Your task to perform on an android device: Go to network settings Image 0: 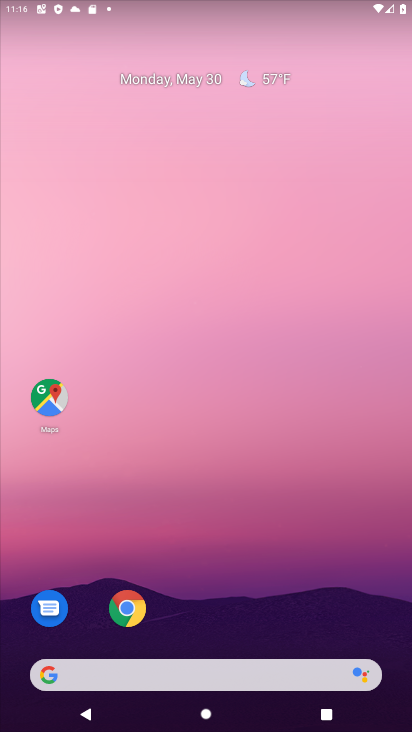
Step 0: drag from (278, 463) to (239, 1)
Your task to perform on an android device: Go to network settings Image 1: 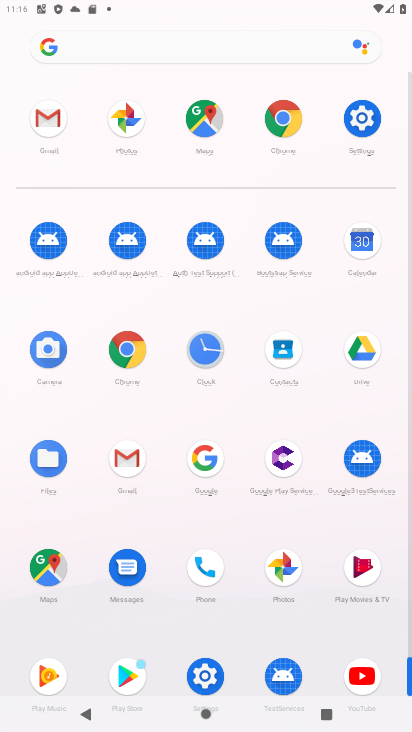
Step 1: drag from (16, 542) to (36, 293)
Your task to perform on an android device: Go to network settings Image 2: 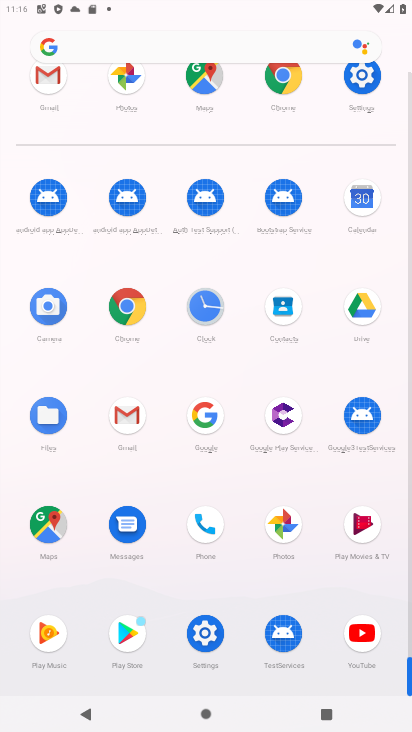
Step 2: click (208, 629)
Your task to perform on an android device: Go to network settings Image 3: 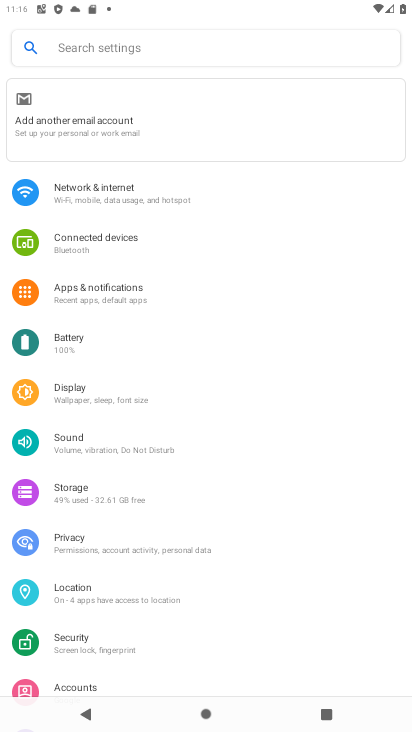
Step 3: click (159, 197)
Your task to perform on an android device: Go to network settings Image 4: 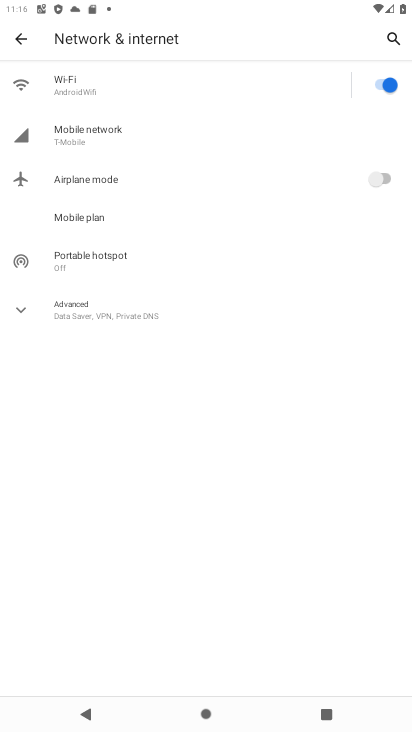
Step 4: click (15, 319)
Your task to perform on an android device: Go to network settings Image 5: 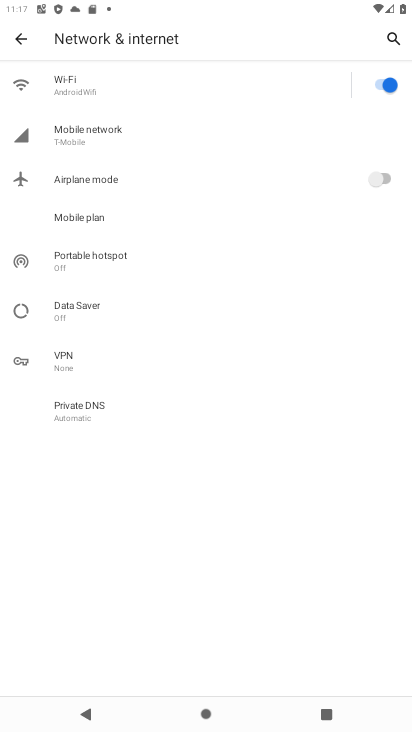
Step 5: task complete